Your task to perform on an android device: open chrome privacy settings Image 0: 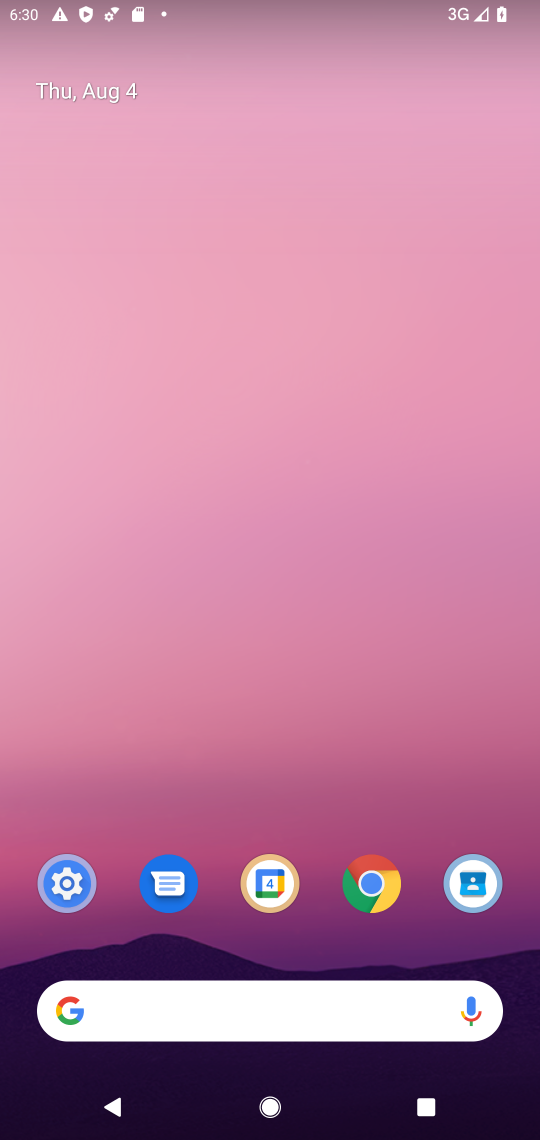
Step 0: click (379, 884)
Your task to perform on an android device: open chrome privacy settings Image 1: 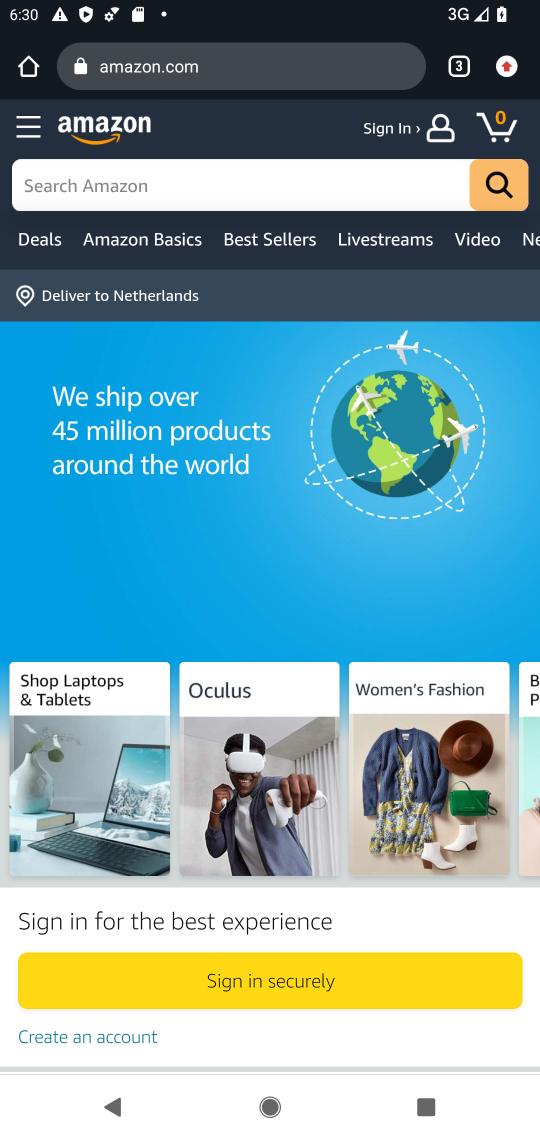
Step 1: click (504, 60)
Your task to perform on an android device: open chrome privacy settings Image 2: 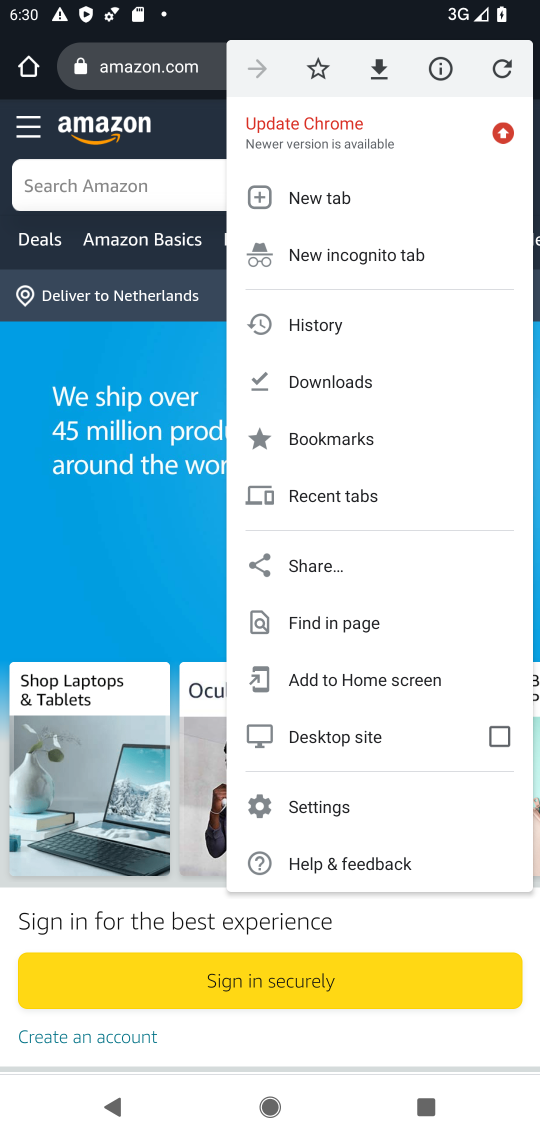
Step 2: click (338, 799)
Your task to perform on an android device: open chrome privacy settings Image 3: 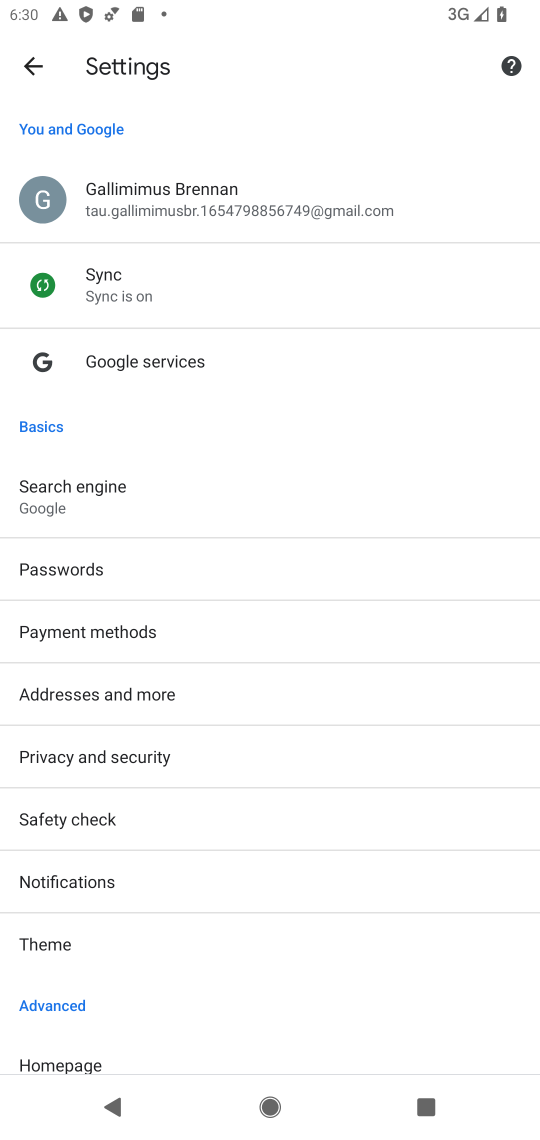
Step 3: drag from (317, 1040) to (301, 701)
Your task to perform on an android device: open chrome privacy settings Image 4: 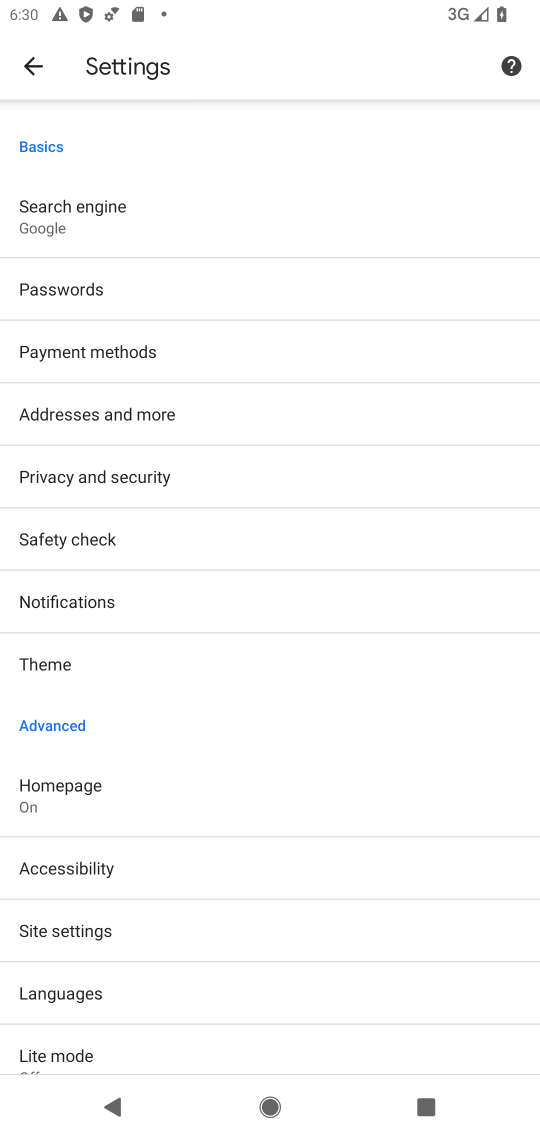
Step 4: click (146, 487)
Your task to perform on an android device: open chrome privacy settings Image 5: 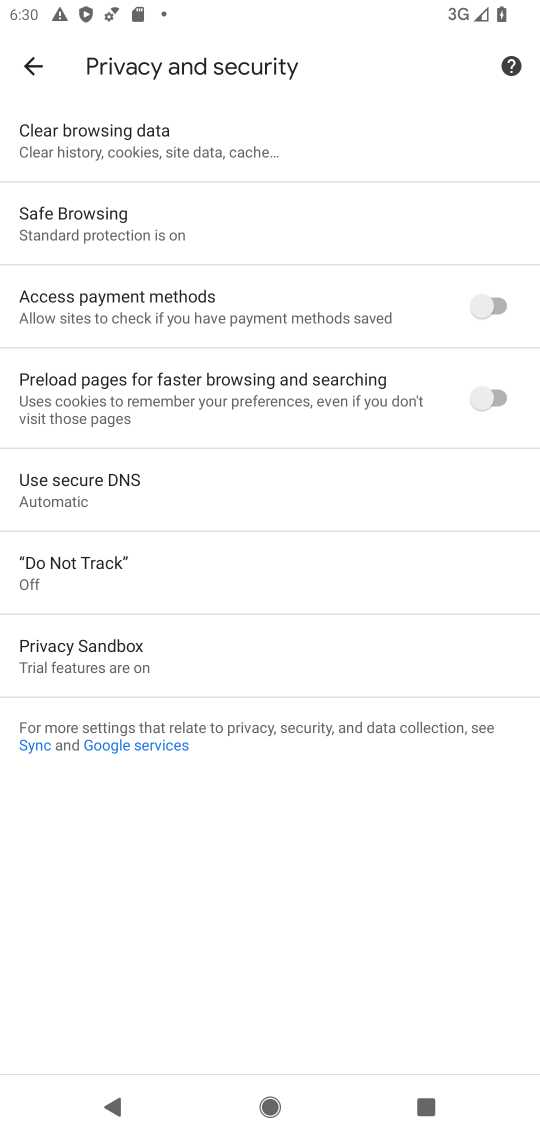
Step 5: task complete